Your task to perform on an android device: choose inbox layout in the gmail app Image 0: 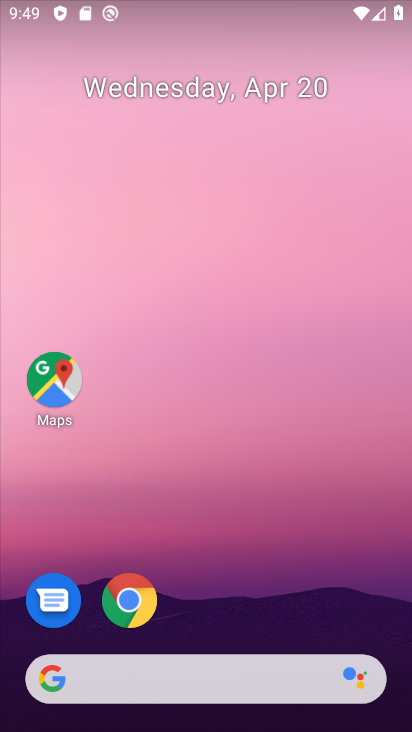
Step 0: click (260, 202)
Your task to perform on an android device: choose inbox layout in the gmail app Image 1: 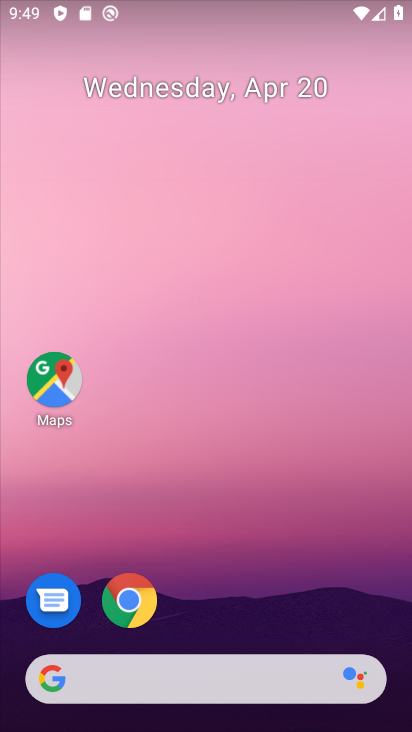
Step 1: drag from (229, 608) to (271, 121)
Your task to perform on an android device: choose inbox layout in the gmail app Image 2: 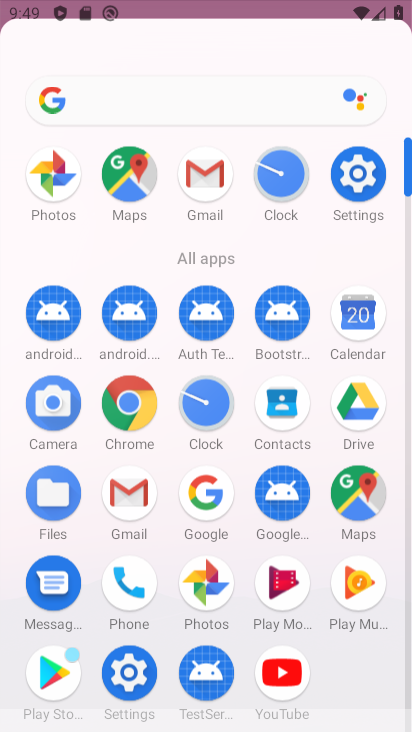
Step 2: click (239, 207)
Your task to perform on an android device: choose inbox layout in the gmail app Image 3: 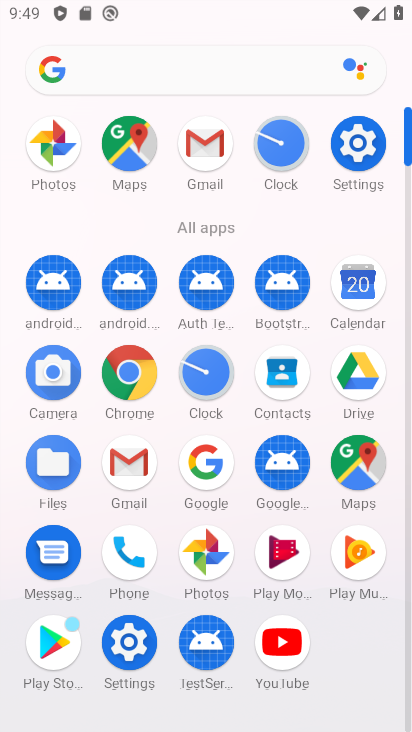
Step 3: click (190, 148)
Your task to perform on an android device: choose inbox layout in the gmail app Image 4: 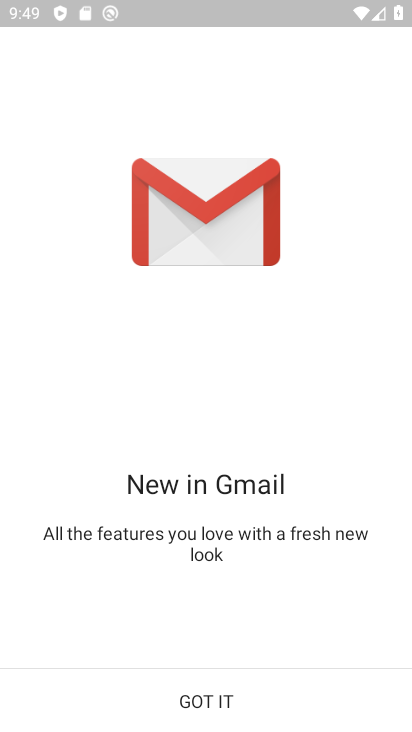
Step 4: click (210, 675)
Your task to perform on an android device: choose inbox layout in the gmail app Image 5: 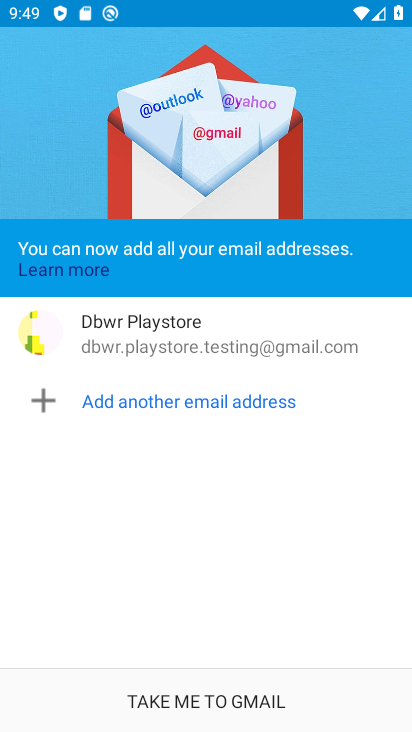
Step 5: click (193, 693)
Your task to perform on an android device: choose inbox layout in the gmail app Image 6: 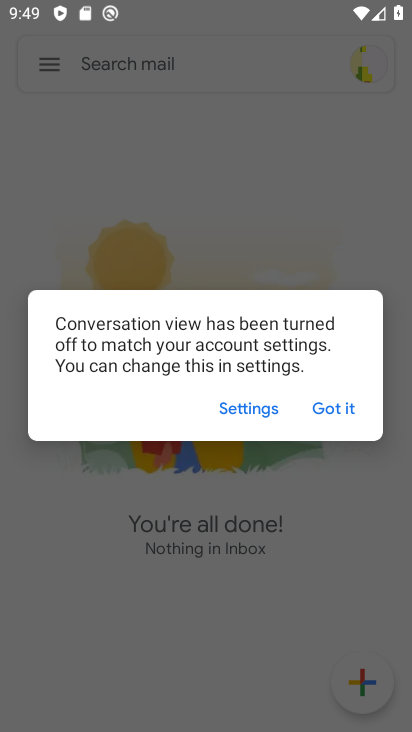
Step 6: click (341, 404)
Your task to perform on an android device: choose inbox layout in the gmail app Image 7: 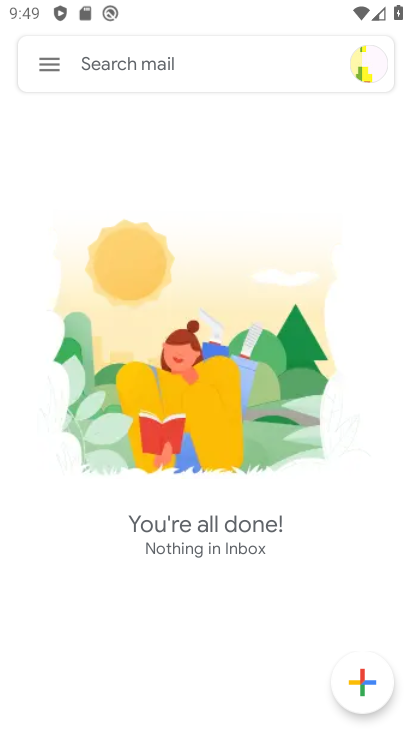
Step 7: click (57, 60)
Your task to perform on an android device: choose inbox layout in the gmail app Image 8: 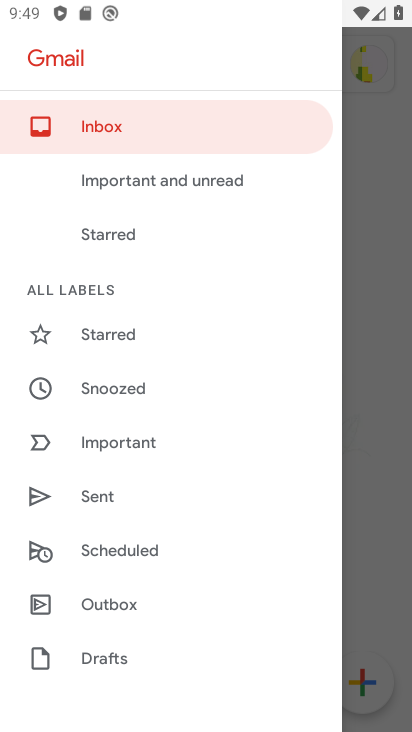
Step 8: drag from (152, 585) to (261, 203)
Your task to perform on an android device: choose inbox layout in the gmail app Image 9: 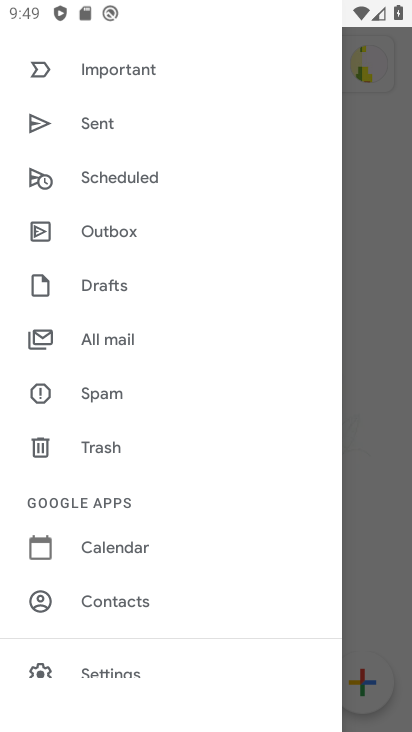
Step 9: drag from (144, 579) to (236, 265)
Your task to perform on an android device: choose inbox layout in the gmail app Image 10: 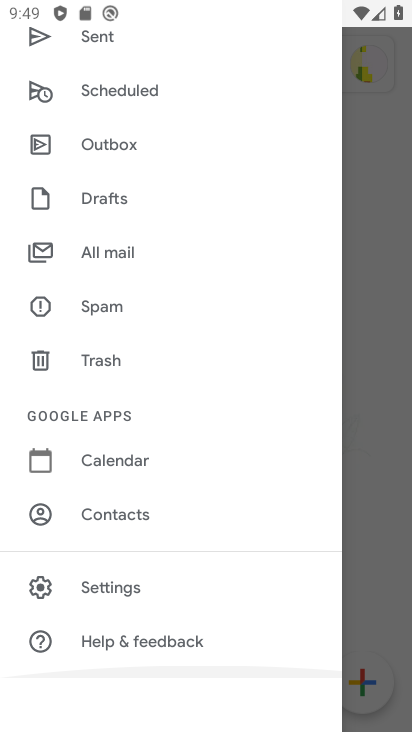
Step 10: click (88, 587)
Your task to perform on an android device: choose inbox layout in the gmail app Image 11: 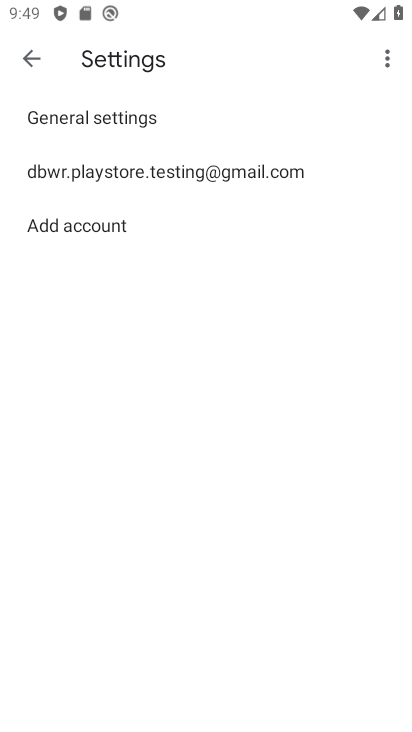
Step 11: click (273, 169)
Your task to perform on an android device: choose inbox layout in the gmail app Image 12: 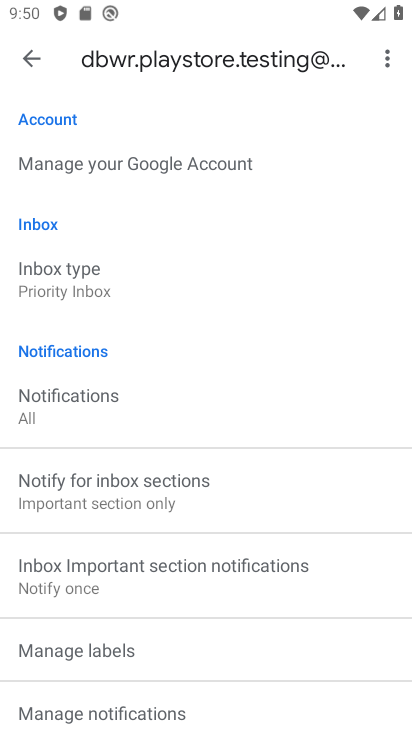
Step 12: click (111, 269)
Your task to perform on an android device: choose inbox layout in the gmail app Image 13: 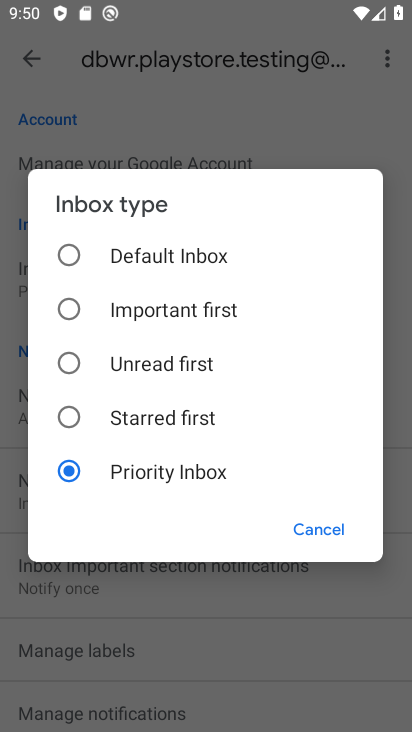
Step 13: click (180, 252)
Your task to perform on an android device: choose inbox layout in the gmail app Image 14: 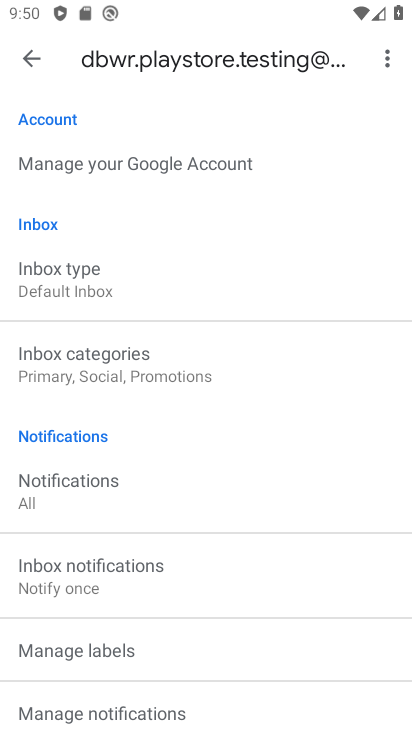
Step 14: task complete